Your task to perform on an android device: uninstall "DoorDash - Dasher" Image 0: 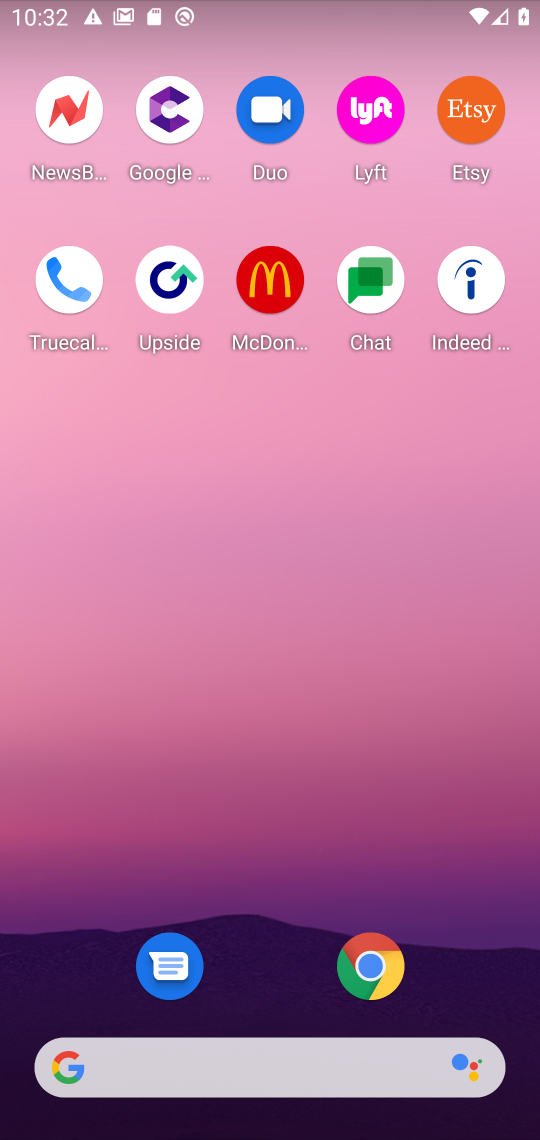
Step 0: drag from (249, 784) to (216, 0)
Your task to perform on an android device: uninstall "DoorDash - Dasher" Image 1: 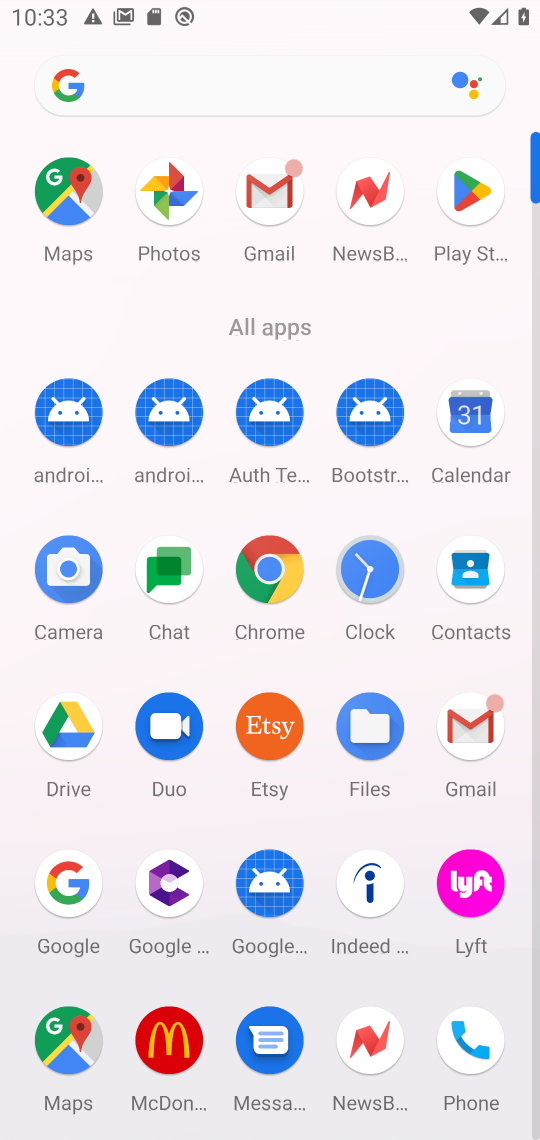
Step 1: click (466, 216)
Your task to perform on an android device: uninstall "DoorDash - Dasher" Image 2: 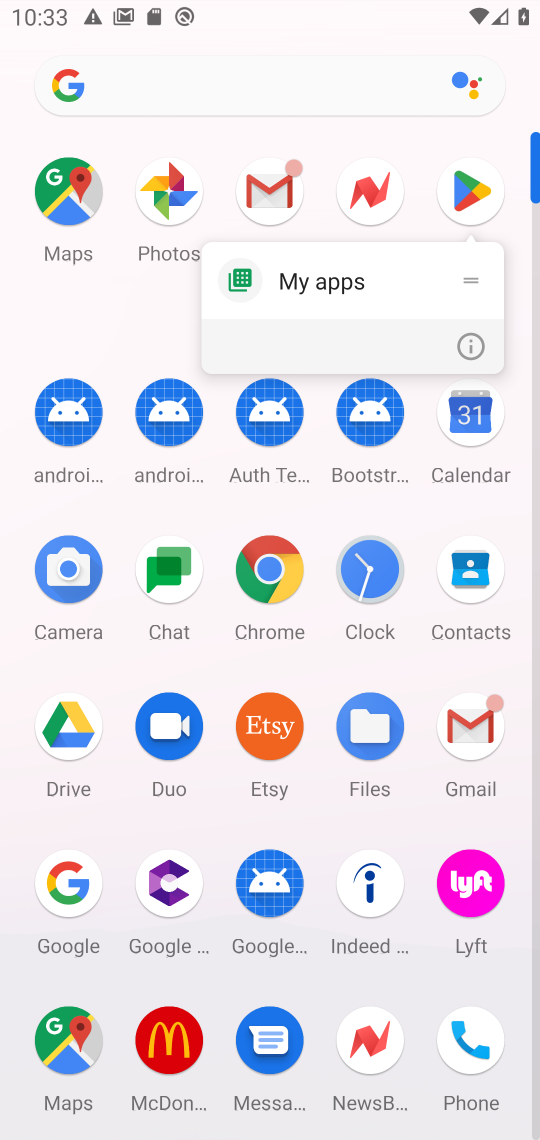
Step 2: click (487, 213)
Your task to perform on an android device: uninstall "DoorDash - Dasher" Image 3: 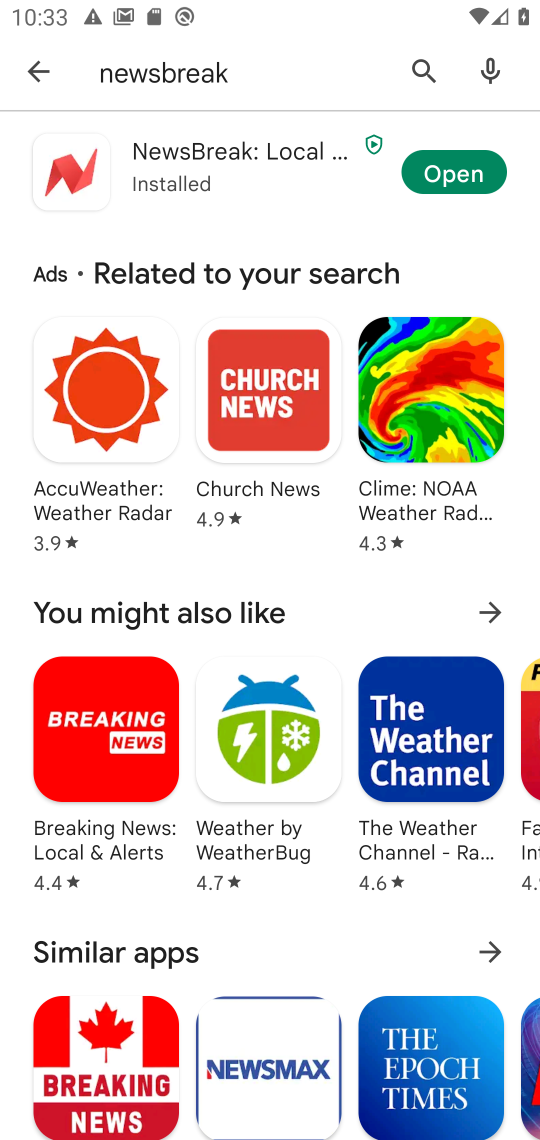
Step 3: click (227, 64)
Your task to perform on an android device: uninstall "DoorDash - Dasher" Image 4: 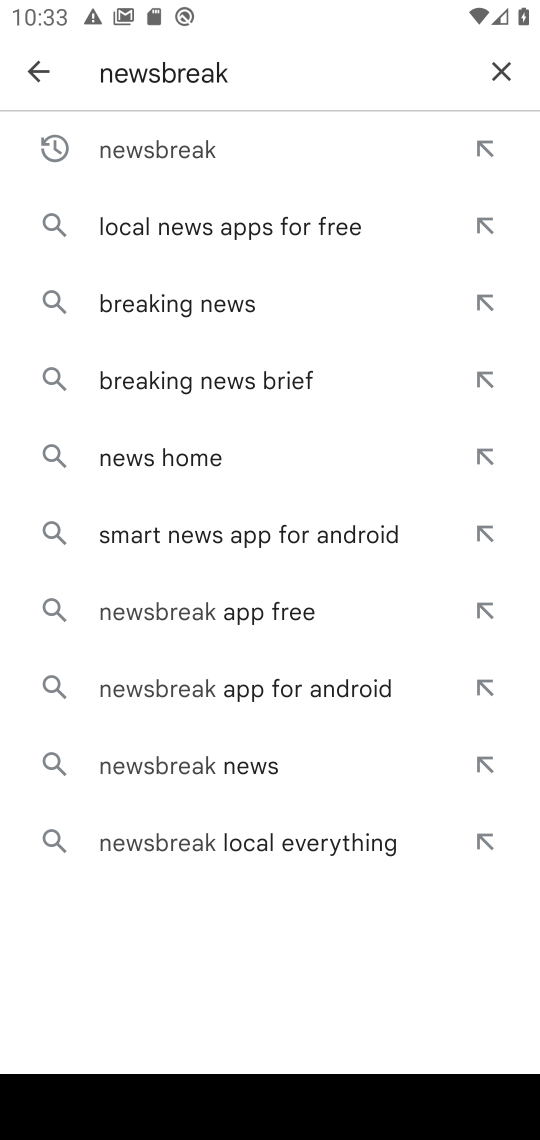
Step 4: click (493, 80)
Your task to perform on an android device: uninstall "DoorDash - Dasher" Image 5: 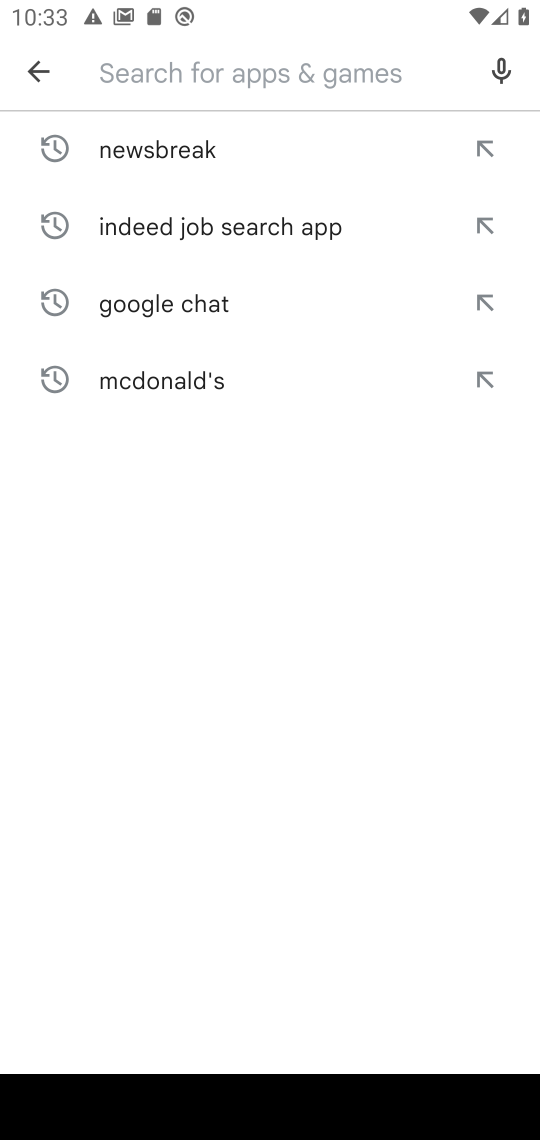
Step 5: type "doordash"
Your task to perform on an android device: uninstall "DoorDash - Dasher" Image 6: 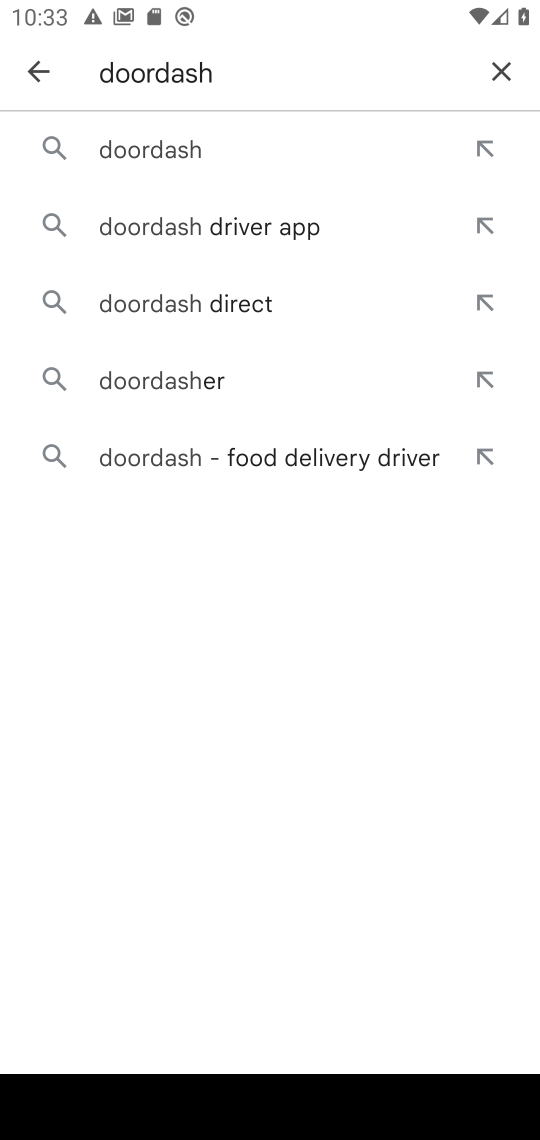
Step 6: click (202, 164)
Your task to perform on an android device: uninstall "DoorDash - Dasher" Image 7: 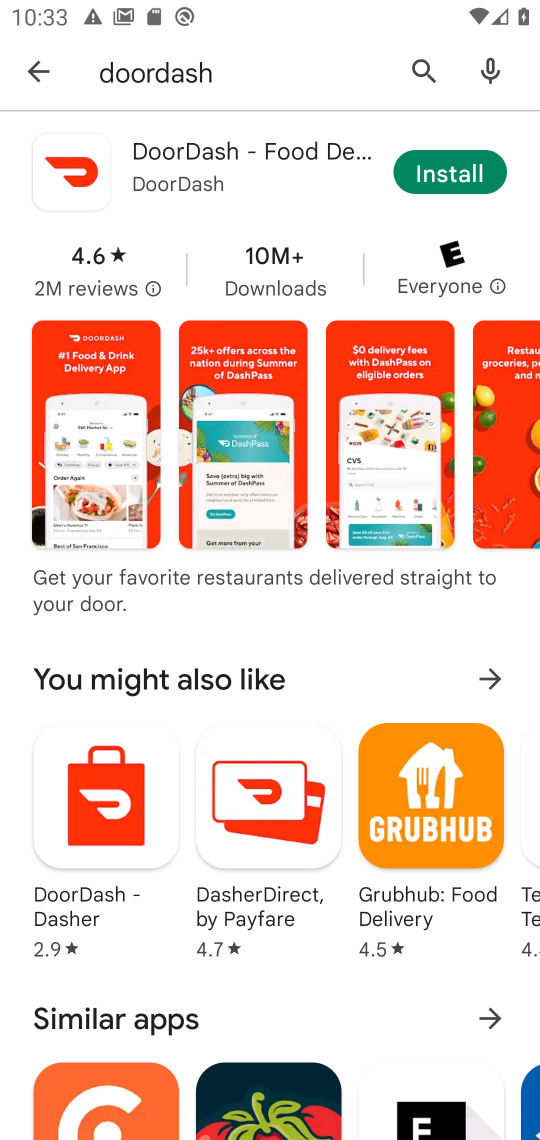
Step 7: task complete